Your task to perform on an android device: Turn off the flashlight Image 0: 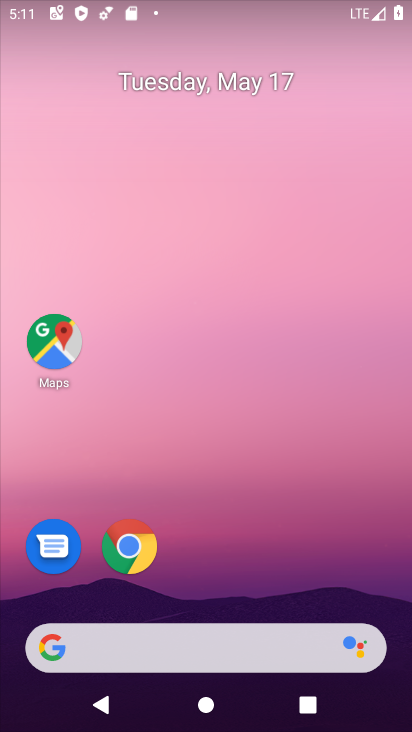
Step 0: drag from (241, 569) to (387, 332)
Your task to perform on an android device: Turn off the flashlight Image 1: 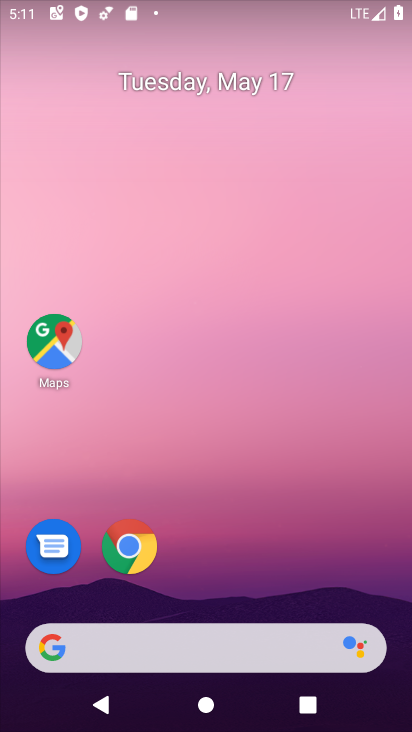
Step 1: task complete